Your task to perform on an android device: Search for "logitech g502" on walmart, select the first entry, add it to the cart, then select checkout. Image 0: 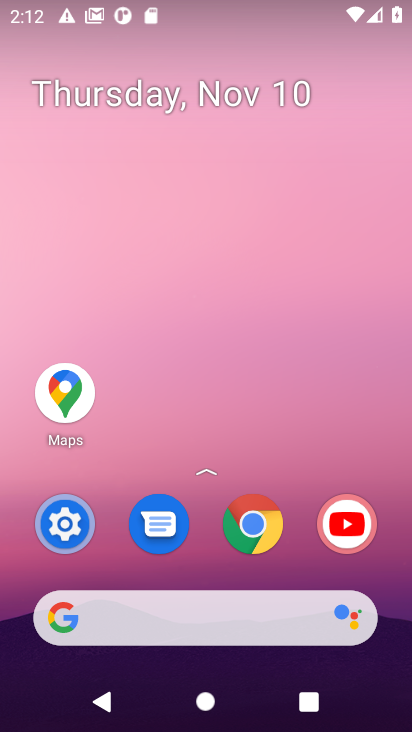
Step 0: click (257, 544)
Your task to perform on an android device: Search for "logitech g502" on walmart, select the first entry, add it to the cart, then select checkout. Image 1: 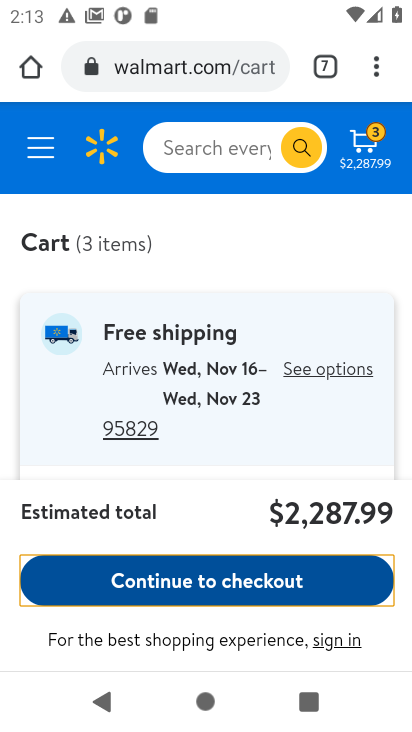
Step 1: click (231, 144)
Your task to perform on an android device: Search for "logitech g502" on walmart, select the first entry, add it to the cart, then select checkout. Image 2: 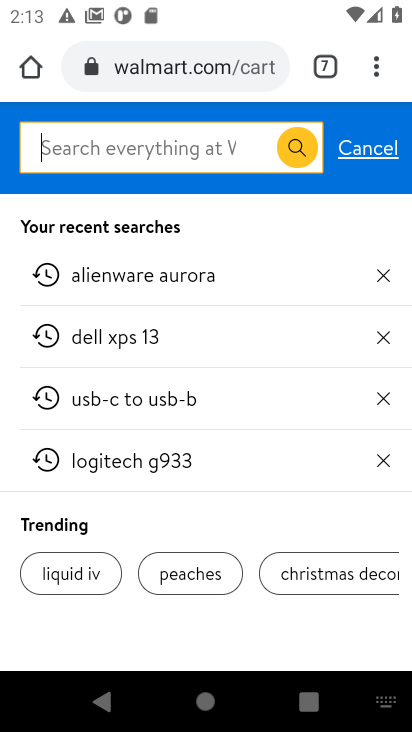
Step 2: type "logitech g502"
Your task to perform on an android device: Search for "logitech g502" on walmart, select the first entry, add it to the cart, then select checkout. Image 3: 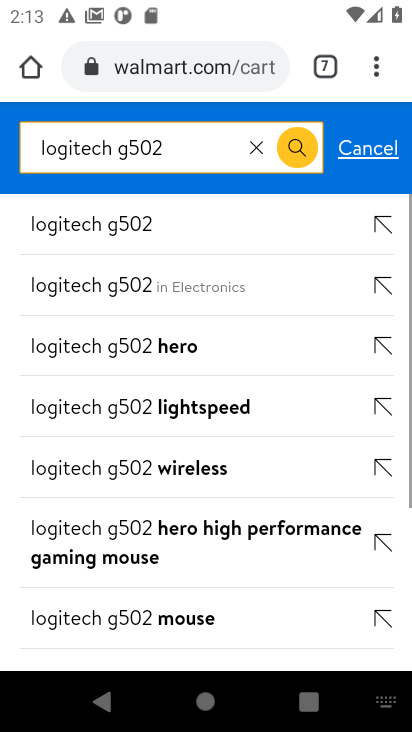
Step 3: click (121, 285)
Your task to perform on an android device: Search for "logitech g502" on walmart, select the first entry, add it to the cart, then select checkout. Image 4: 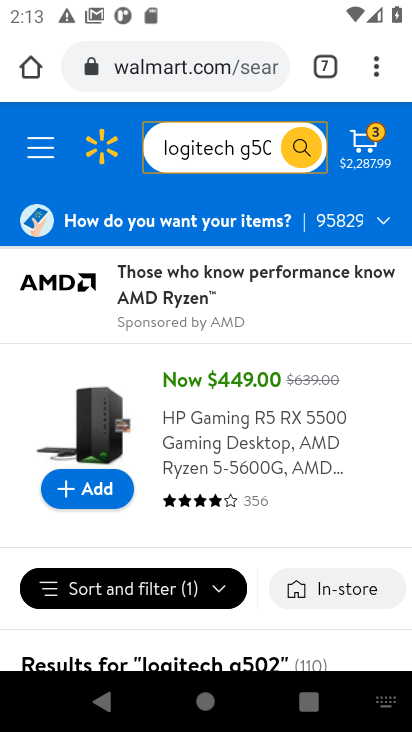
Step 4: drag from (251, 527) to (207, 250)
Your task to perform on an android device: Search for "logitech g502" on walmart, select the first entry, add it to the cart, then select checkout. Image 5: 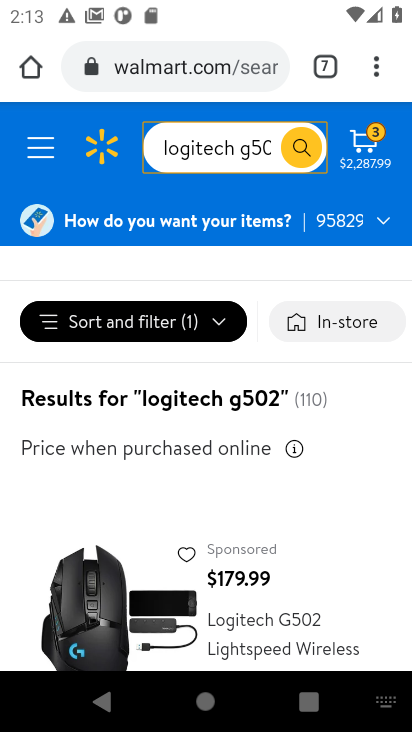
Step 5: drag from (289, 529) to (345, 350)
Your task to perform on an android device: Search for "logitech g502" on walmart, select the first entry, add it to the cart, then select checkout. Image 6: 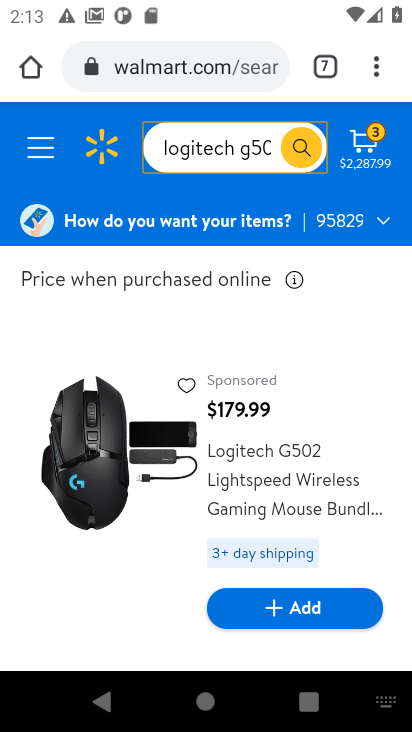
Step 6: click (267, 601)
Your task to perform on an android device: Search for "logitech g502" on walmart, select the first entry, add it to the cart, then select checkout. Image 7: 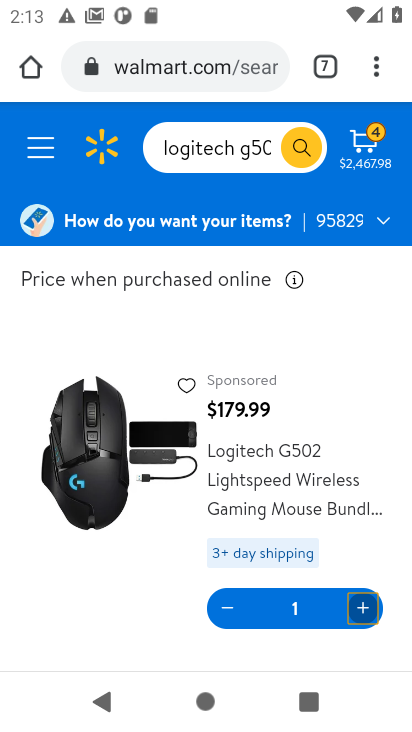
Step 7: click (368, 146)
Your task to perform on an android device: Search for "logitech g502" on walmart, select the first entry, add it to the cart, then select checkout. Image 8: 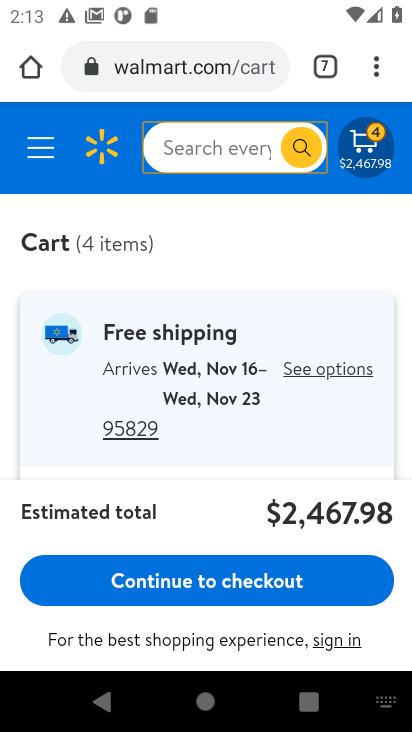
Step 8: click (217, 584)
Your task to perform on an android device: Search for "logitech g502" on walmart, select the first entry, add it to the cart, then select checkout. Image 9: 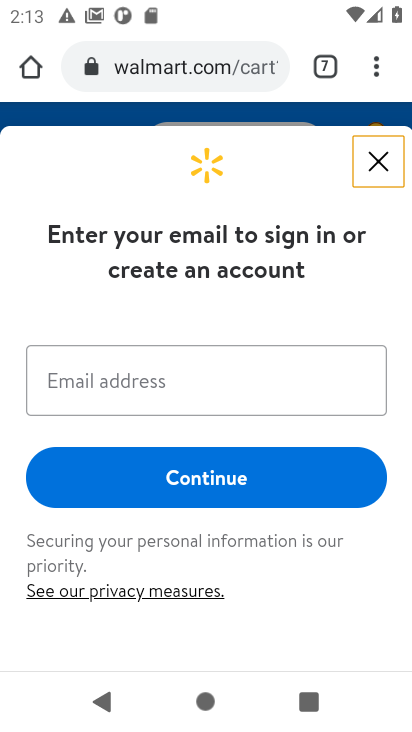
Step 9: click (379, 162)
Your task to perform on an android device: Search for "logitech g502" on walmart, select the first entry, add it to the cart, then select checkout. Image 10: 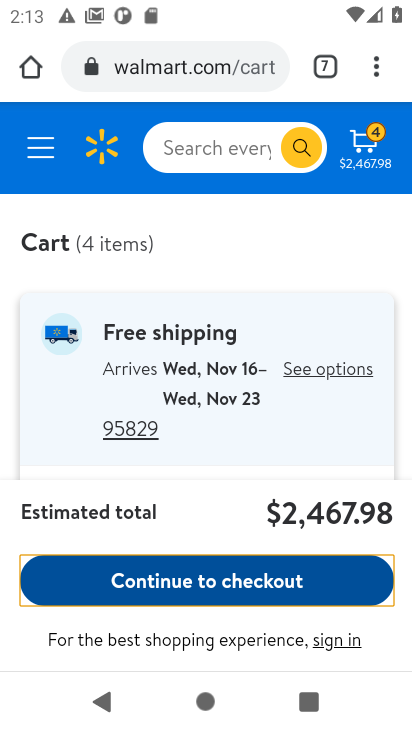
Step 10: task complete